Your task to perform on an android device: toggle sleep mode Image 0: 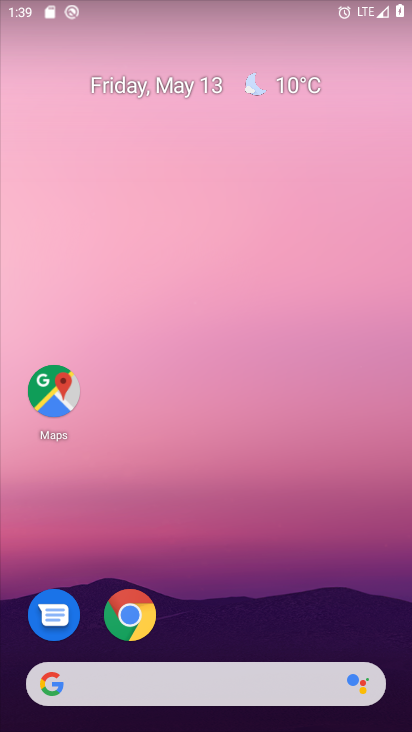
Step 0: drag from (277, 542) to (264, 49)
Your task to perform on an android device: toggle sleep mode Image 1: 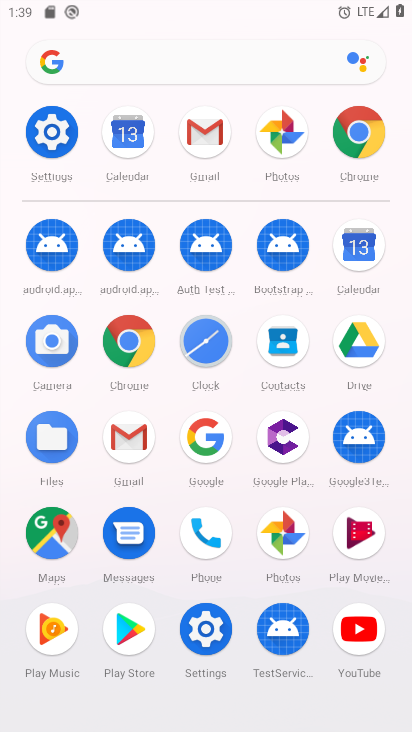
Step 1: click (59, 136)
Your task to perform on an android device: toggle sleep mode Image 2: 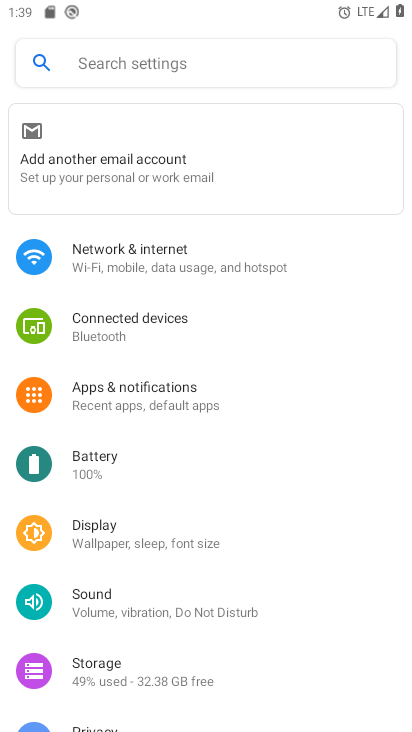
Step 2: click (149, 538)
Your task to perform on an android device: toggle sleep mode Image 3: 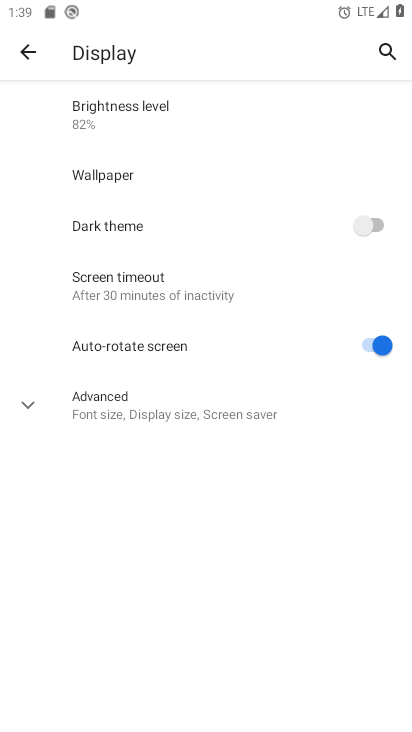
Step 3: click (28, 396)
Your task to perform on an android device: toggle sleep mode Image 4: 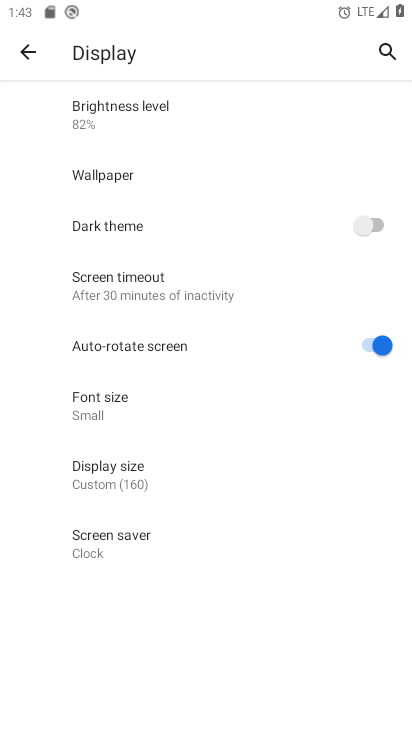
Step 4: task complete